Your task to perform on an android device: Search for the best movies of 2019  Image 0: 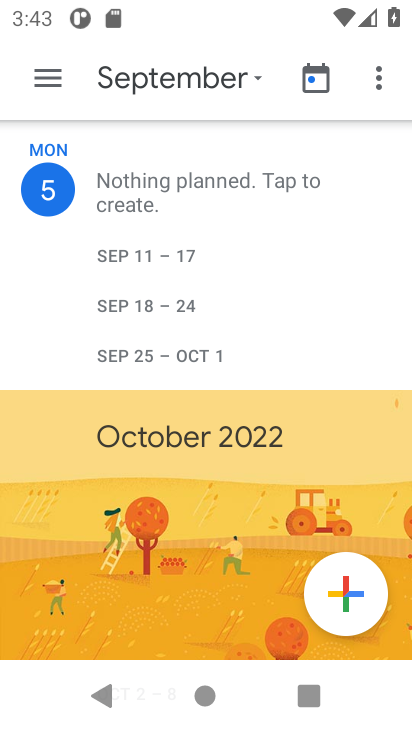
Step 0: press back button
Your task to perform on an android device: Search for the best movies of 2019  Image 1: 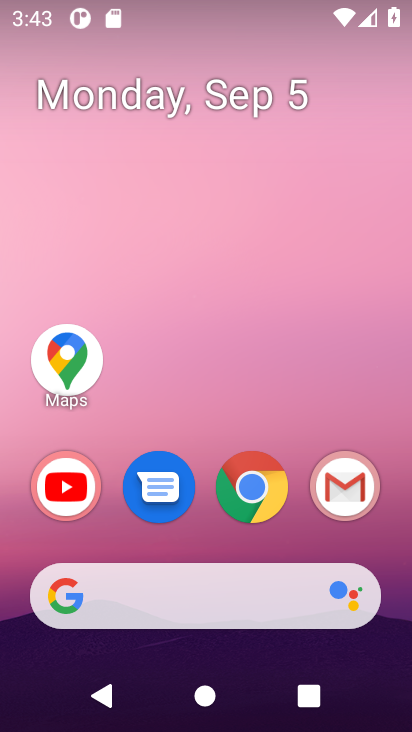
Step 1: click (241, 474)
Your task to perform on an android device: Search for the best movies of 2019  Image 2: 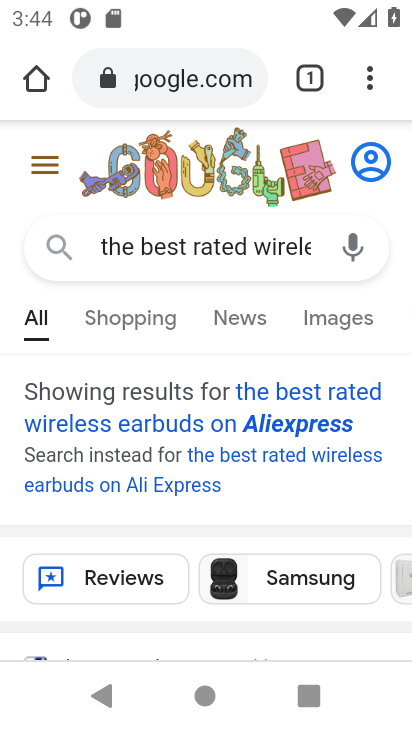
Step 2: task complete